Your task to perform on an android device: see creations saved in the google photos Image 0: 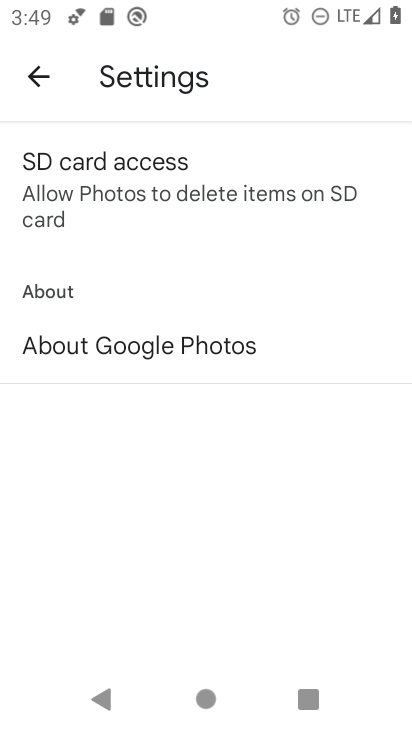
Step 0: press home button
Your task to perform on an android device: see creations saved in the google photos Image 1: 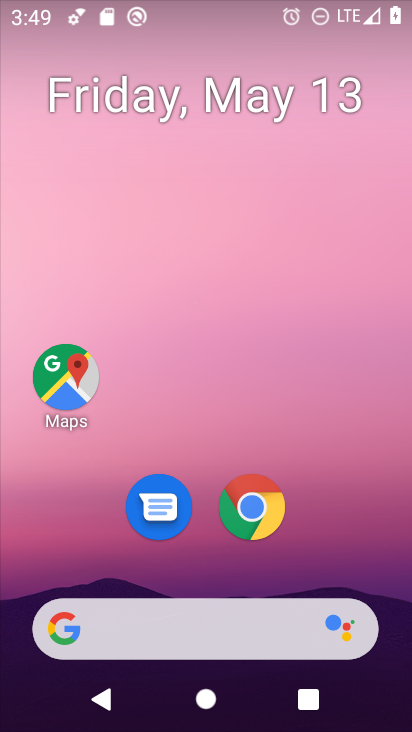
Step 1: drag from (400, 569) to (379, 206)
Your task to perform on an android device: see creations saved in the google photos Image 2: 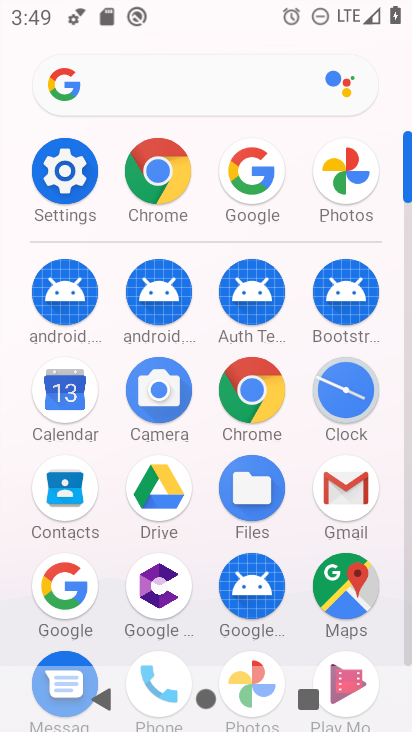
Step 2: click (322, 187)
Your task to perform on an android device: see creations saved in the google photos Image 3: 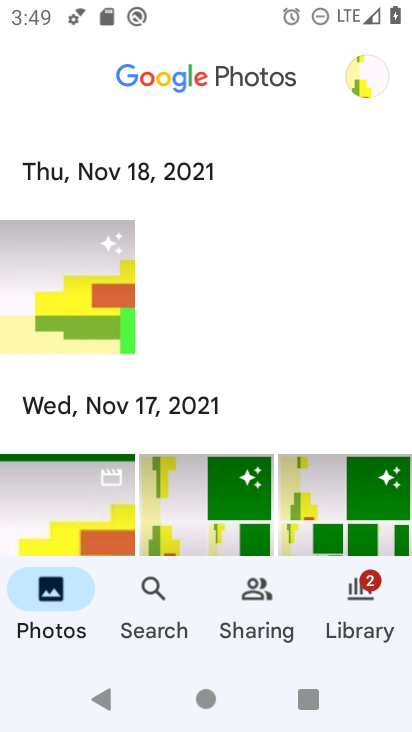
Step 3: click (362, 82)
Your task to perform on an android device: see creations saved in the google photos Image 4: 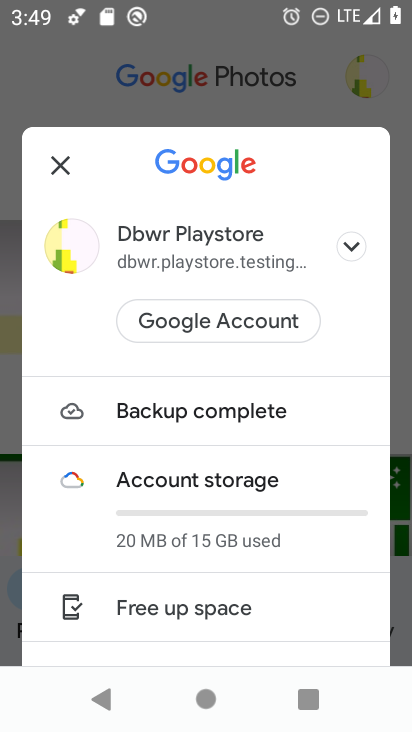
Step 4: drag from (277, 490) to (307, 159)
Your task to perform on an android device: see creations saved in the google photos Image 5: 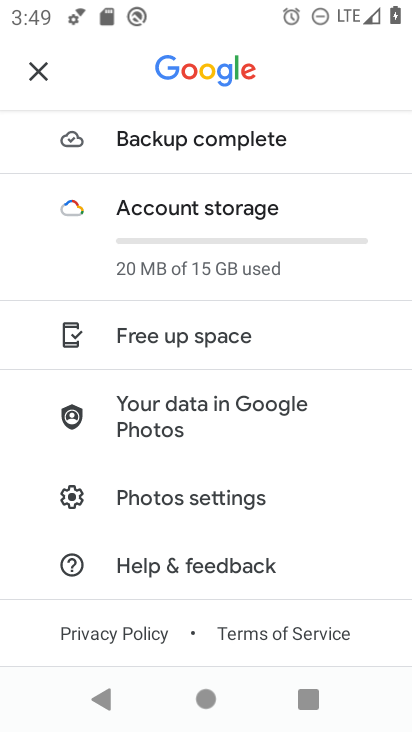
Step 5: drag from (262, 159) to (253, 438)
Your task to perform on an android device: see creations saved in the google photos Image 6: 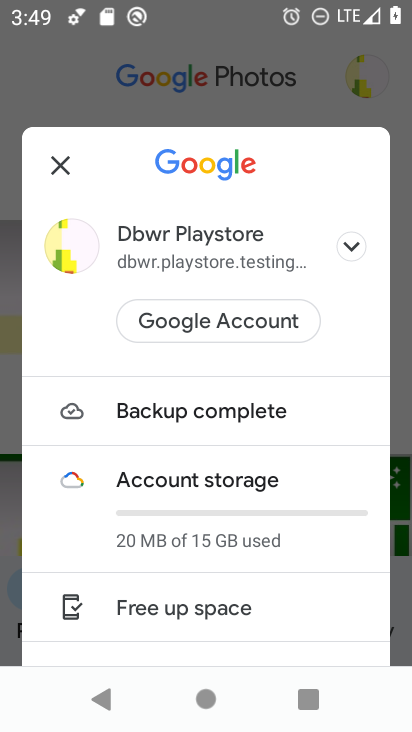
Step 6: drag from (282, 448) to (306, 134)
Your task to perform on an android device: see creations saved in the google photos Image 7: 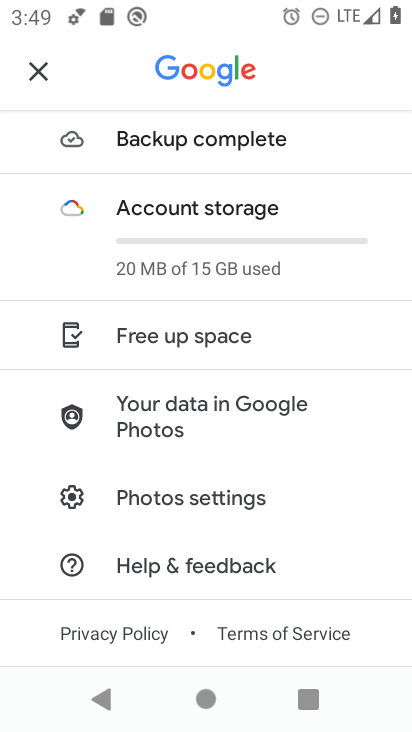
Step 7: click (224, 484)
Your task to perform on an android device: see creations saved in the google photos Image 8: 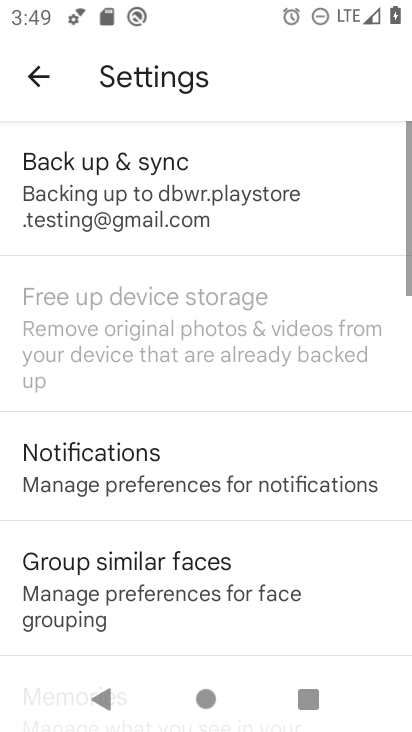
Step 8: drag from (218, 454) to (254, 148)
Your task to perform on an android device: see creations saved in the google photos Image 9: 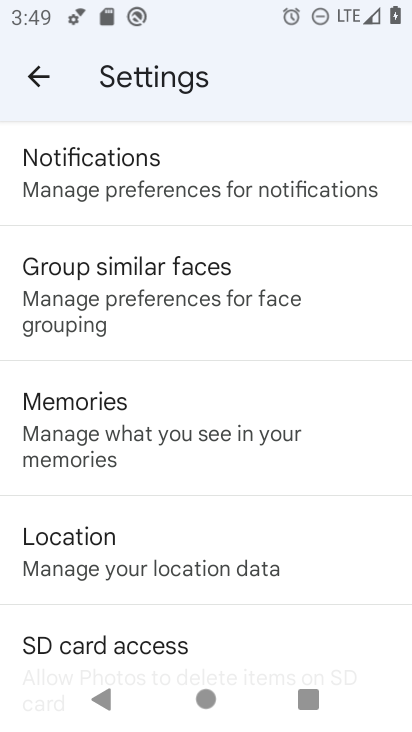
Step 9: drag from (203, 446) to (179, 145)
Your task to perform on an android device: see creations saved in the google photos Image 10: 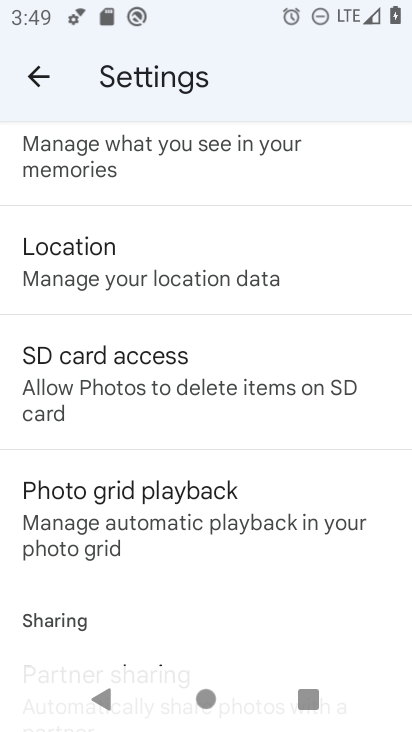
Step 10: drag from (221, 452) to (325, 113)
Your task to perform on an android device: see creations saved in the google photos Image 11: 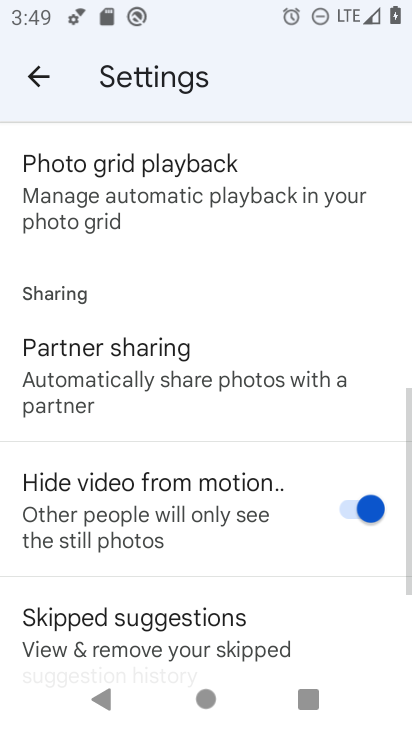
Step 11: drag from (346, 458) to (367, 138)
Your task to perform on an android device: see creations saved in the google photos Image 12: 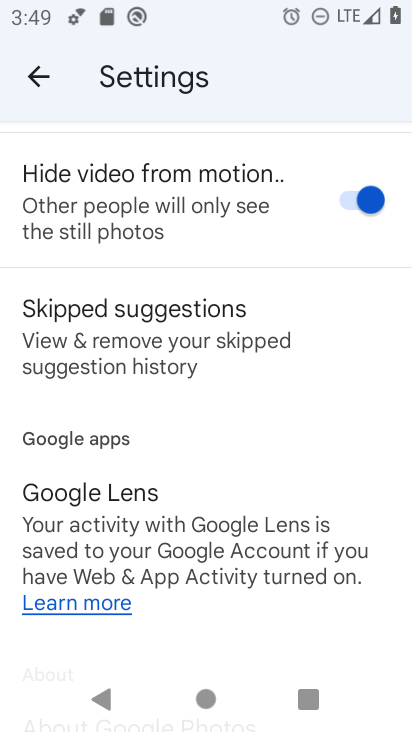
Step 12: drag from (124, 530) to (242, 120)
Your task to perform on an android device: see creations saved in the google photos Image 13: 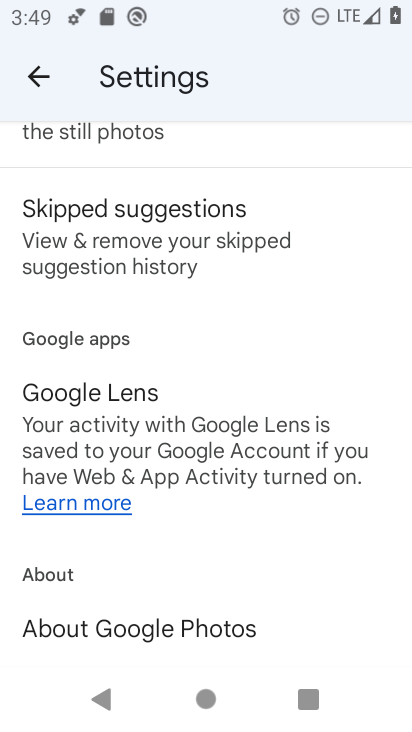
Step 13: drag from (156, 630) to (221, 270)
Your task to perform on an android device: see creations saved in the google photos Image 14: 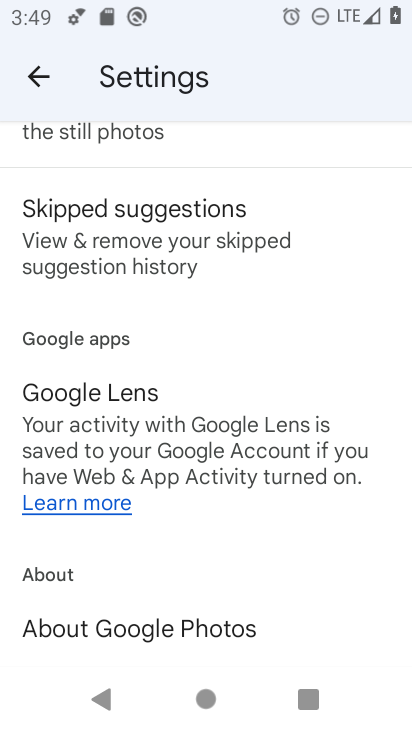
Step 14: click (184, 603)
Your task to perform on an android device: see creations saved in the google photos Image 15: 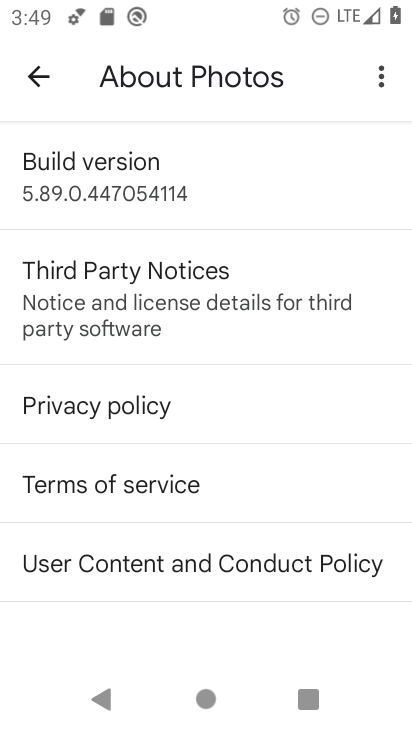
Step 15: task complete